Your task to perform on an android device: open wifi settings Image 0: 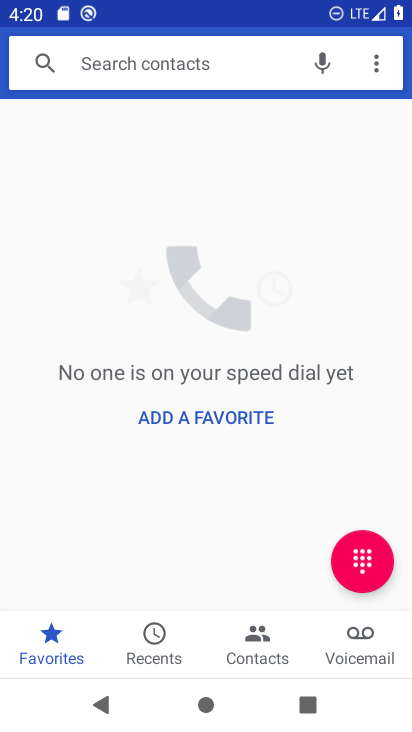
Step 0: press home button
Your task to perform on an android device: open wifi settings Image 1: 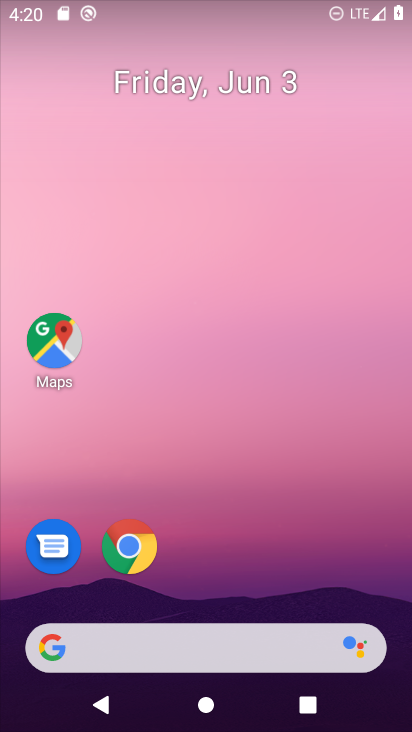
Step 1: drag from (251, 568) to (288, 55)
Your task to perform on an android device: open wifi settings Image 2: 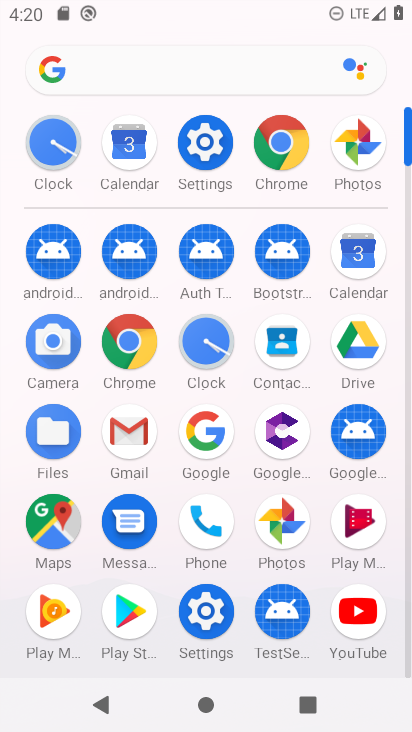
Step 2: click (219, 135)
Your task to perform on an android device: open wifi settings Image 3: 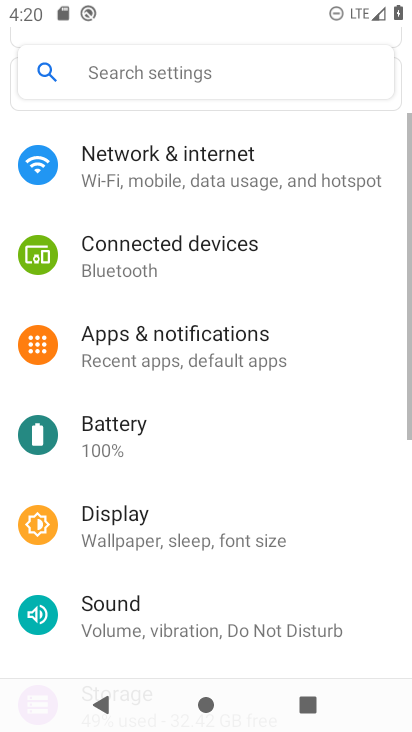
Step 3: drag from (235, 261) to (262, 507)
Your task to perform on an android device: open wifi settings Image 4: 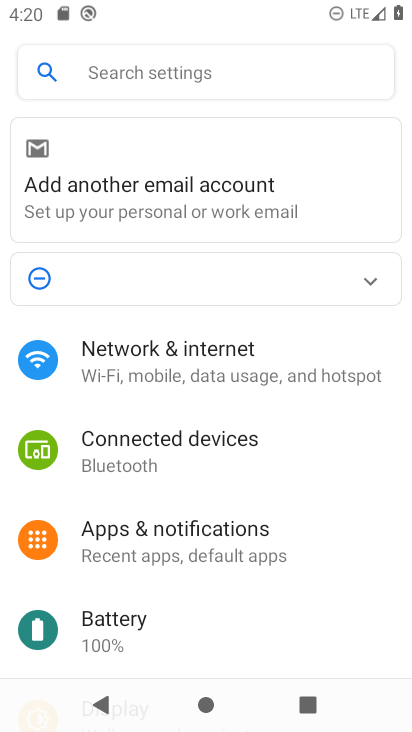
Step 4: click (215, 353)
Your task to perform on an android device: open wifi settings Image 5: 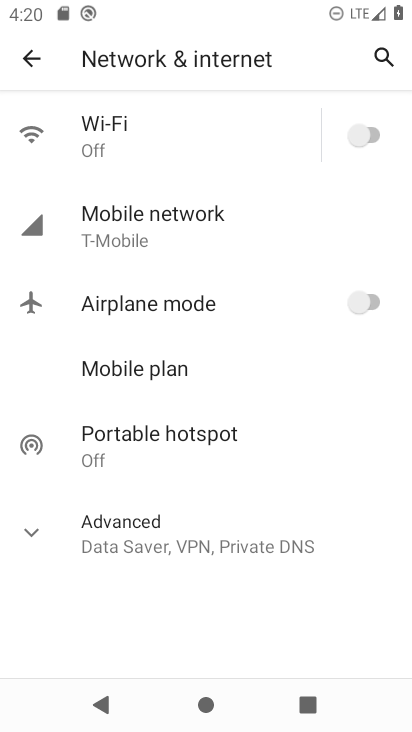
Step 5: click (199, 124)
Your task to perform on an android device: open wifi settings Image 6: 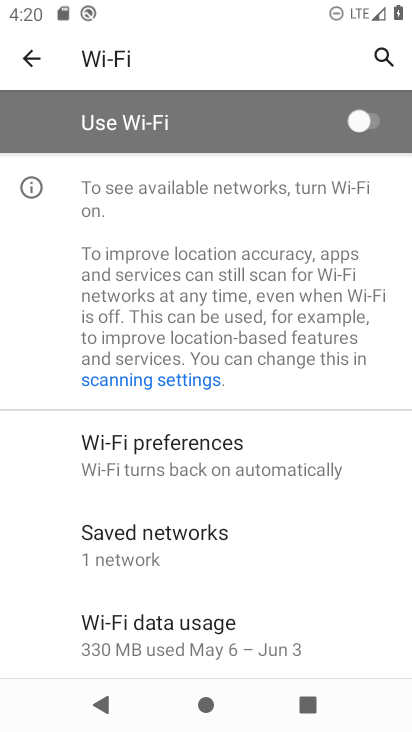
Step 6: task complete